Your task to perform on an android device: What's on my calendar today? Image 0: 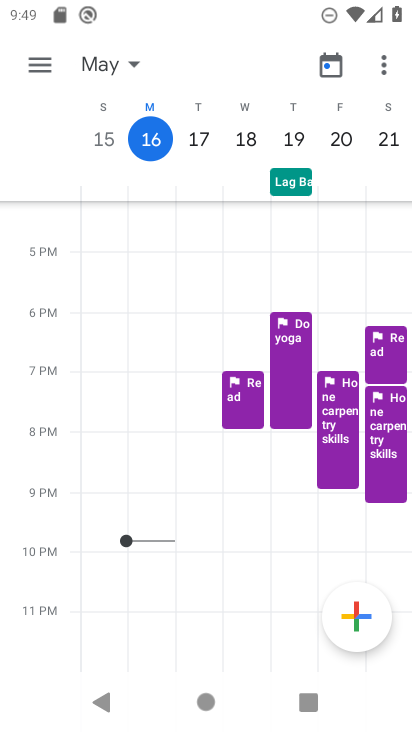
Step 0: click (149, 146)
Your task to perform on an android device: What's on my calendar today? Image 1: 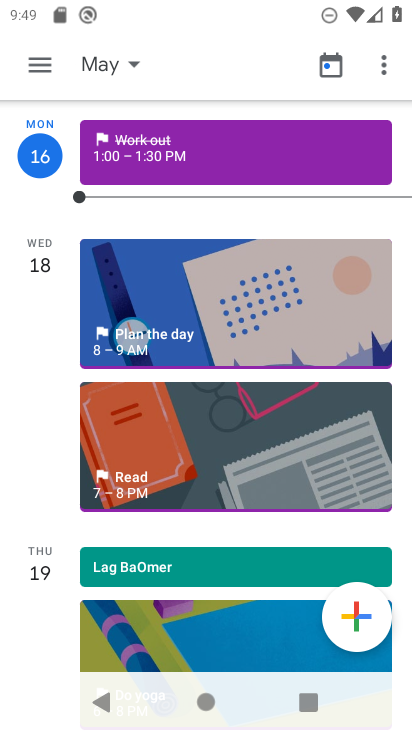
Step 1: task complete